Your task to perform on an android device: turn off wifi Image 0: 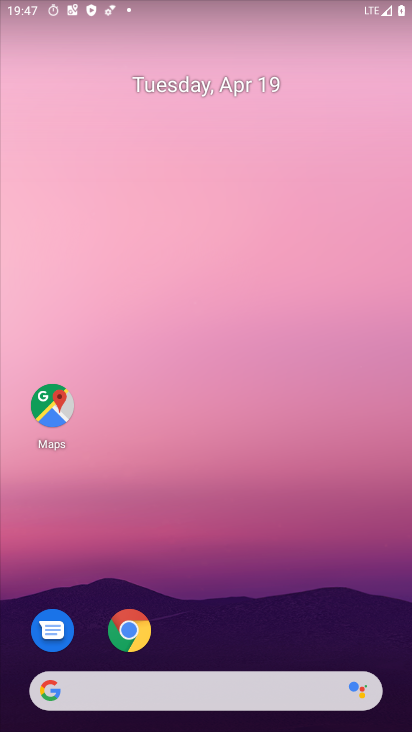
Step 0: drag from (205, 667) to (328, 2)
Your task to perform on an android device: turn off wifi Image 1: 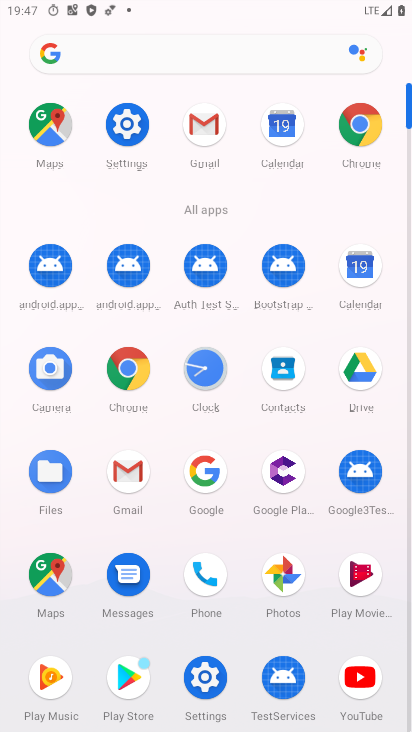
Step 1: click (134, 139)
Your task to perform on an android device: turn off wifi Image 2: 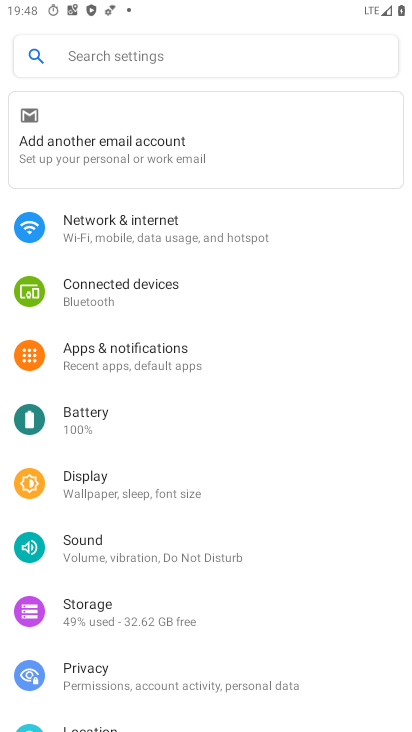
Step 2: click (137, 224)
Your task to perform on an android device: turn off wifi Image 3: 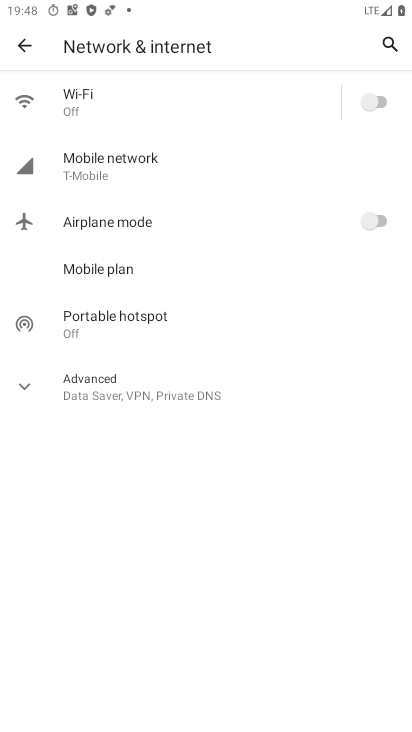
Step 3: click (84, 118)
Your task to perform on an android device: turn off wifi Image 4: 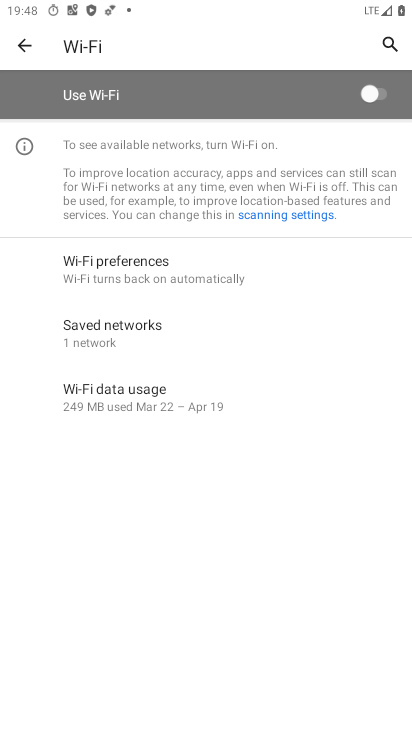
Step 4: task complete